Your task to perform on an android device: open device folders in google photos Image 0: 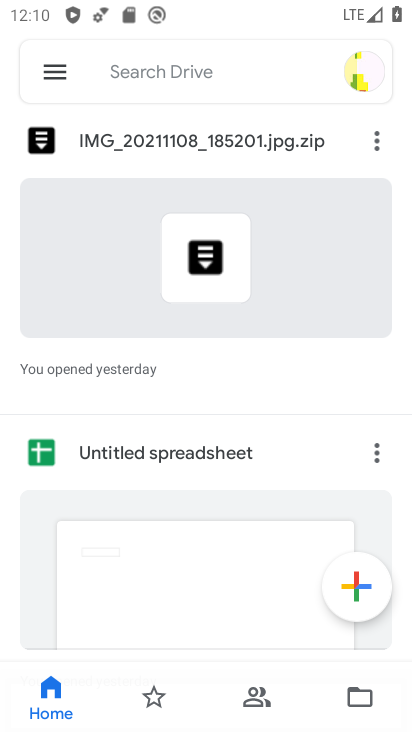
Step 0: press back button
Your task to perform on an android device: open device folders in google photos Image 1: 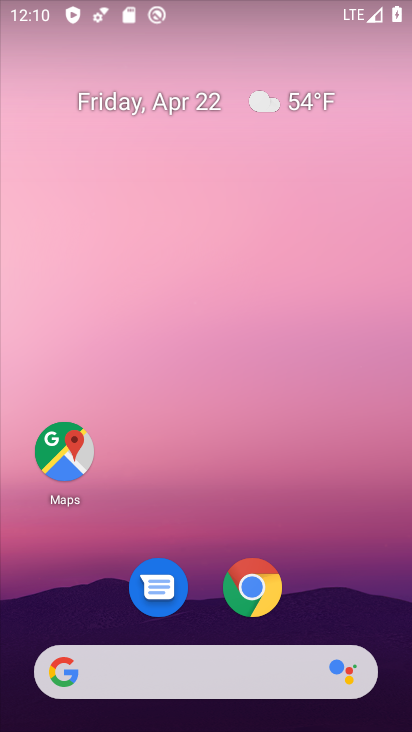
Step 1: drag from (213, 599) to (307, 59)
Your task to perform on an android device: open device folders in google photos Image 2: 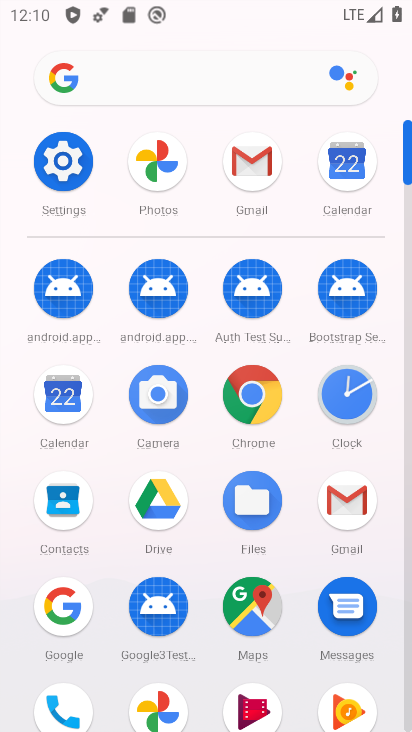
Step 2: click (155, 160)
Your task to perform on an android device: open device folders in google photos Image 3: 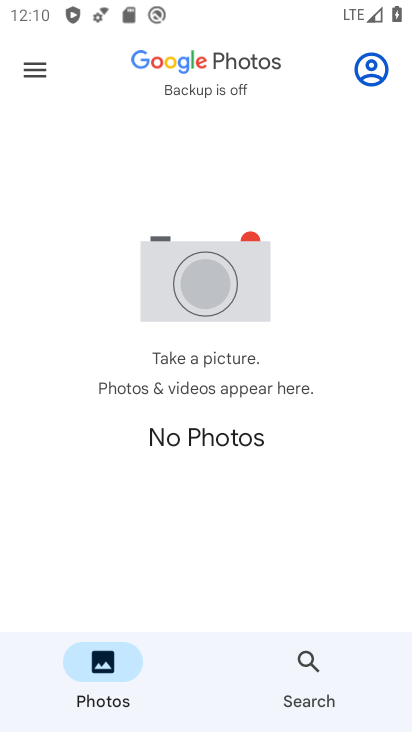
Step 3: click (37, 69)
Your task to perform on an android device: open device folders in google photos Image 4: 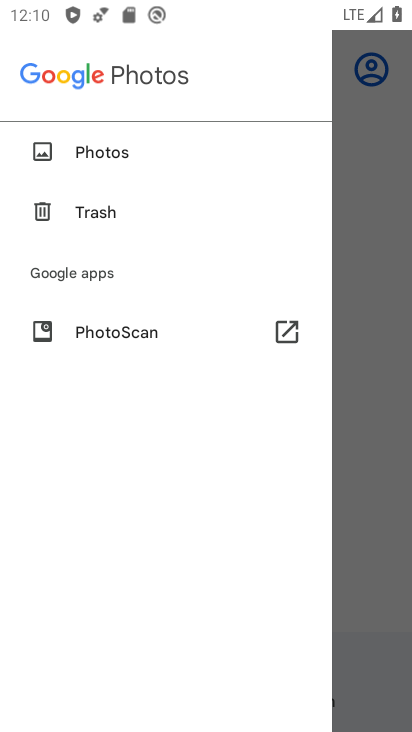
Step 4: drag from (224, 244) to (197, 636)
Your task to perform on an android device: open device folders in google photos Image 5: 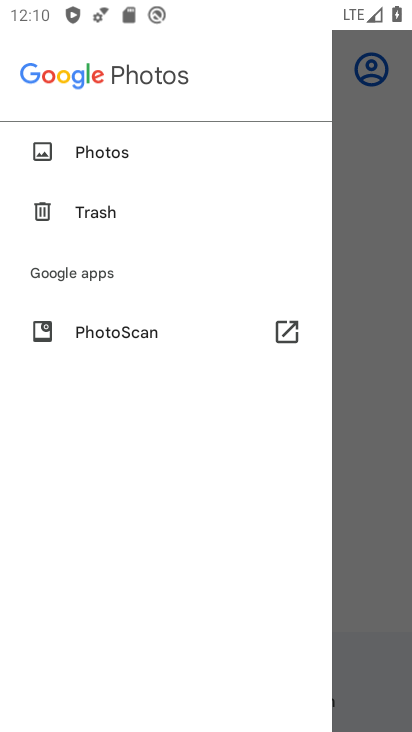
Step 5: drag from (172, 227) to (227, 674)
Your task to perform on an android device: open device folders in google photos Image 6: 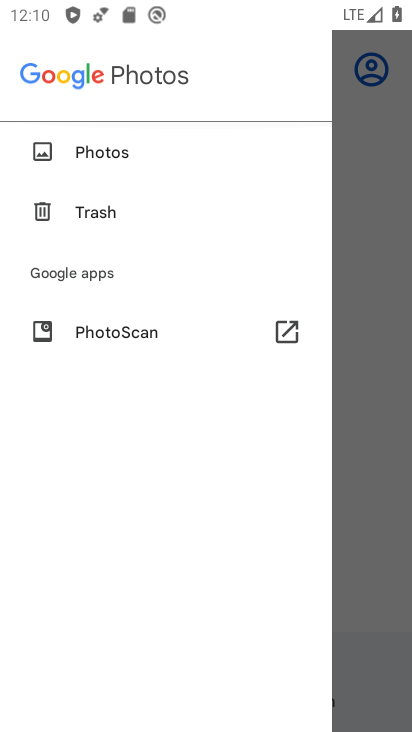
Step 6: click (110, 127)
Your task to perform on an android device: open device folders in google photos Image 7: 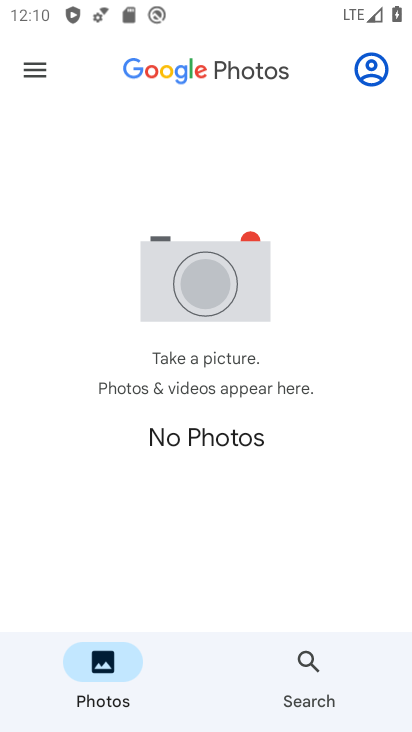
Step 7: click (352, 70)
Your task to perform on an android device: open device folders in google photos Image 8: 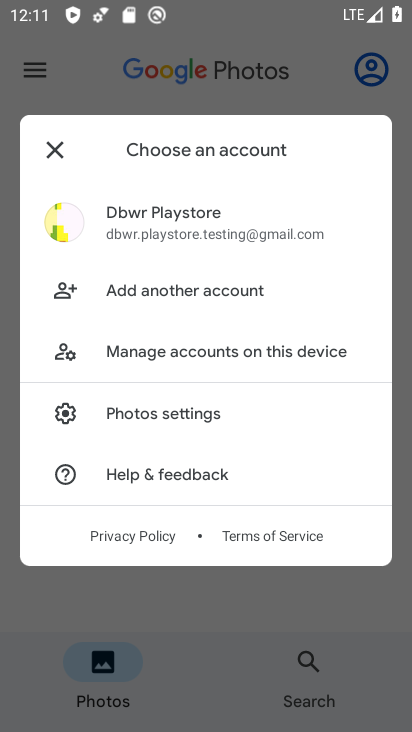
Step 8: click (84, 83)
Your task to perform on an android device: open device folders in google photos Image 9: 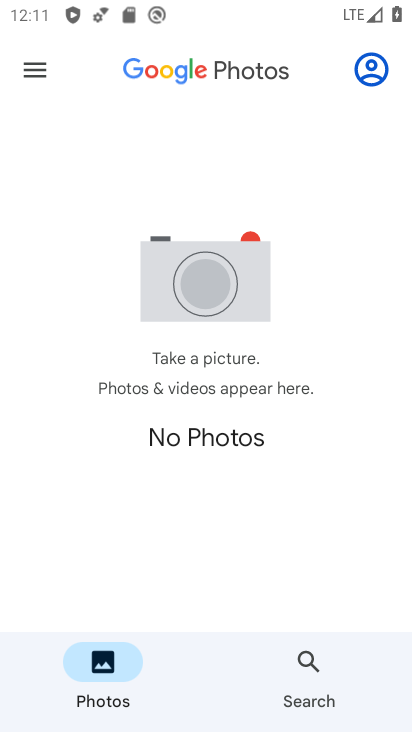
Step 9: click (36, 64)
Your task to perform on an android device: open device folders in google photos Image 10: 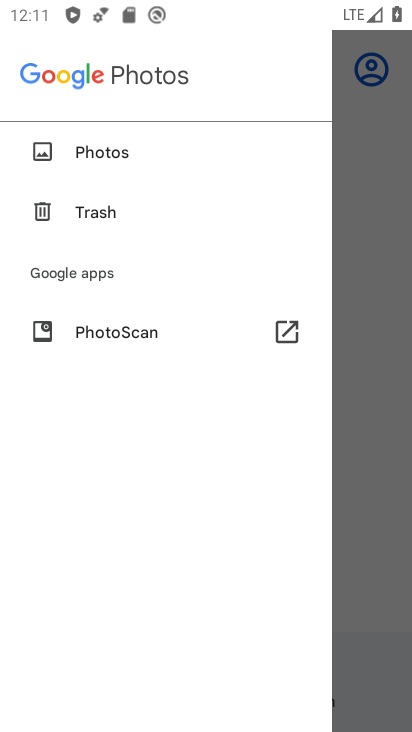
Step 10: task complete